Your task to perform on an android device: Show me popular videos on Youtube Image 0: 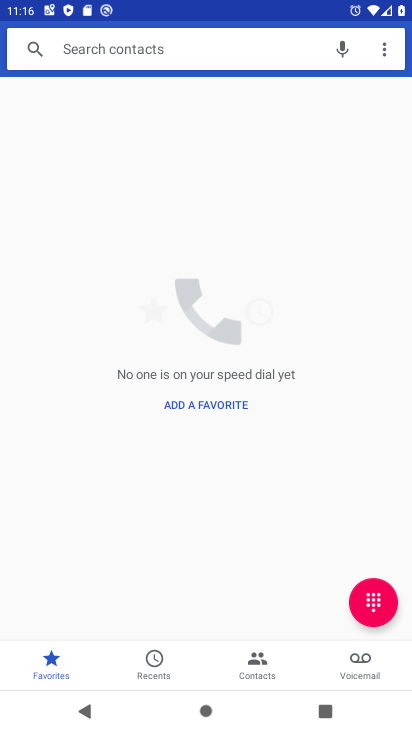
Step 0: press home button
Your task to perform on an android device: Show me popular videos on Youtube Image 1: 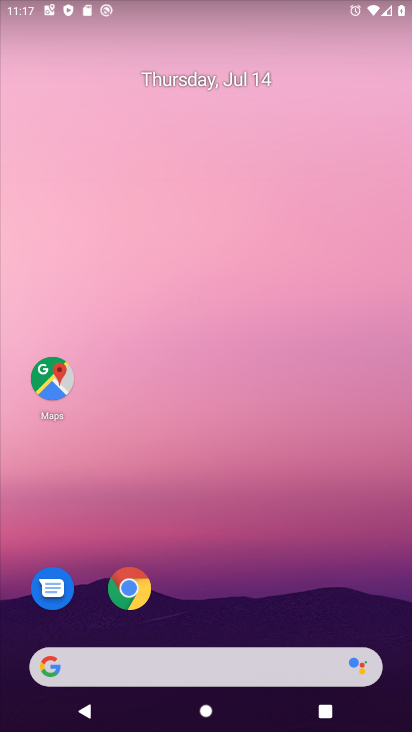
Step 1: drag from (395, 680) to (299, 190)
Your task to perform on an android device: Show me popular videos on Youtube Image 2: 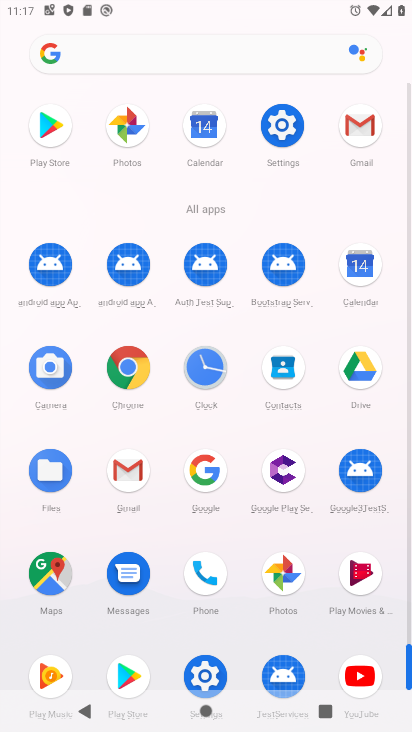
Step 2: click (357, 676)
Your task to perform on an android device: Show me popular videos on Youtube Image 3: 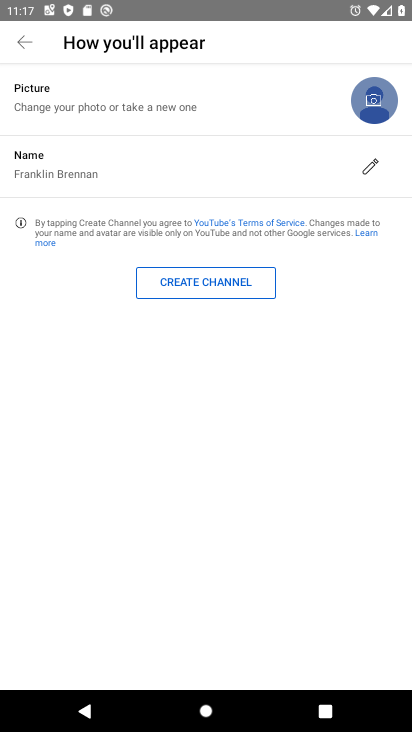
Step 3: press back button
Your task to perform on an android device: Show me popular videos on Youtube Image 4: 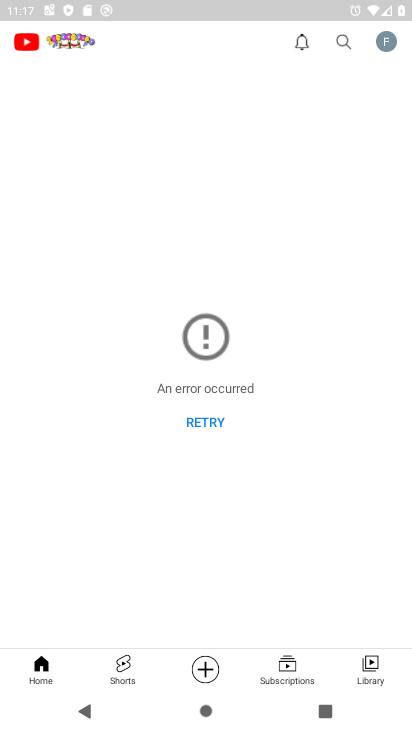
Step 4: click (202, 420)
Your task to perform on an android device: Show me popular videos on Youtube Image 5: 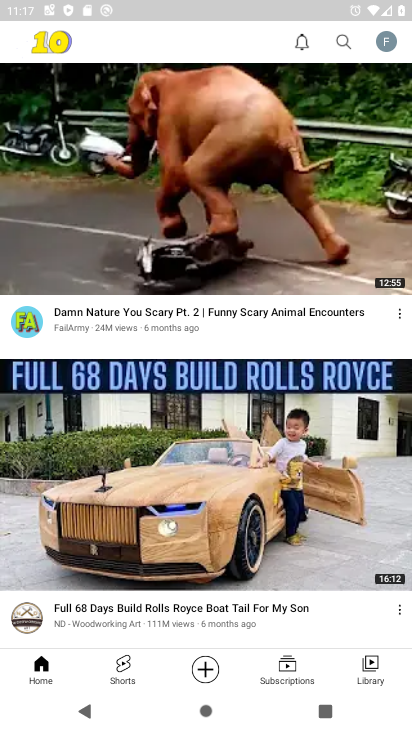
Step 5: drag from (90, 170) to (103, 347)
Your task to perform on an android device: Show me popular videos on Youtube Image 6: 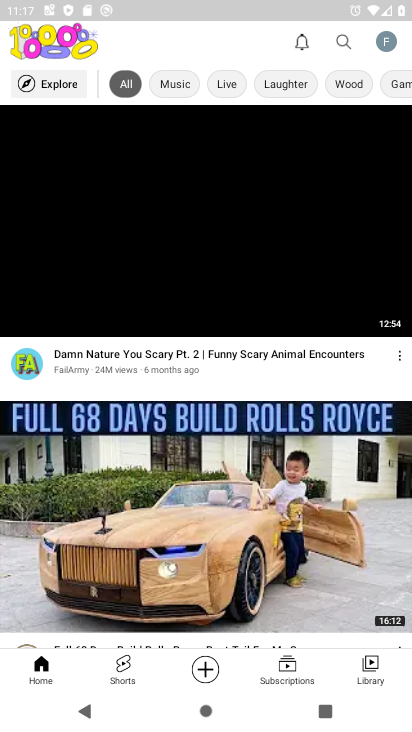
Step 6: click (40, 81)
Your task to perform on an android device: Show me popular videos on Youtube Image 7: 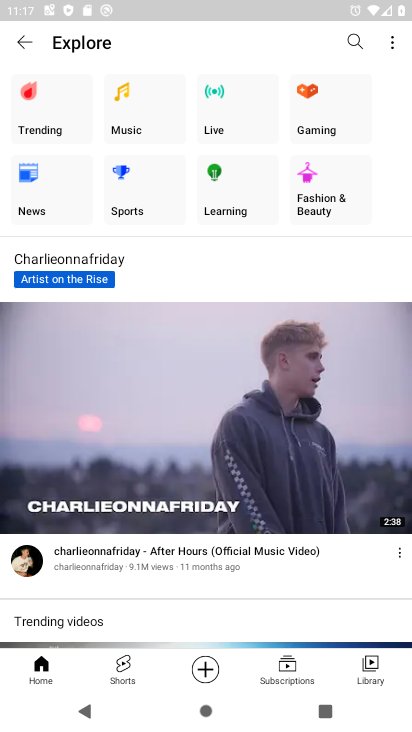
Step 7: click (34, 97)
Your task to perform on an android device: Show me popular videos on Youtube Image 8: 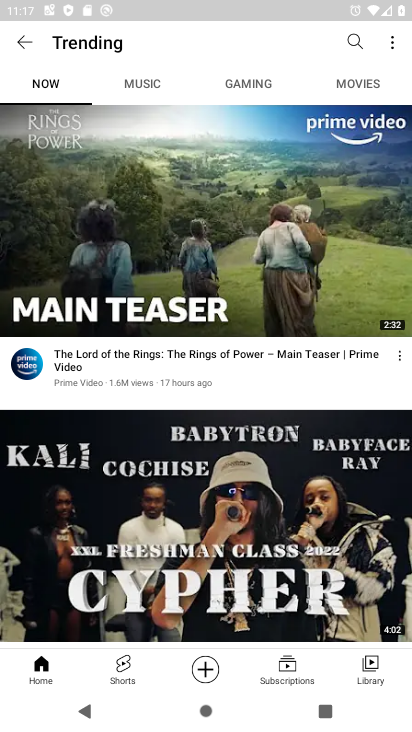
Step 8: task complete